Your task to perform on an android device: toggle priority inbox in the gmail app Image 0: 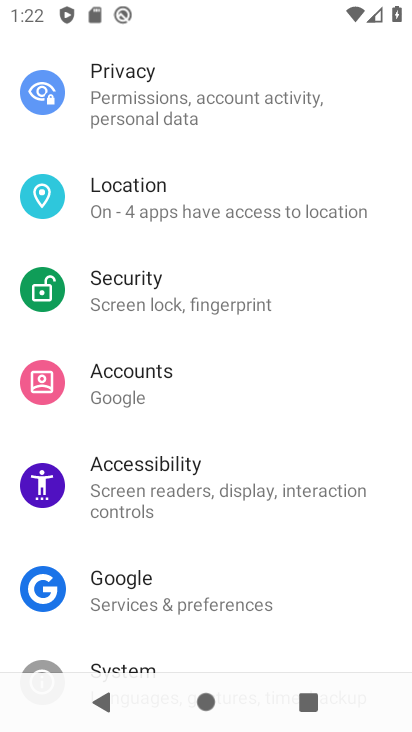
Step 0: press home button
Your task to perform on an android device: toggle priority inbox in the gmail app Image 1: 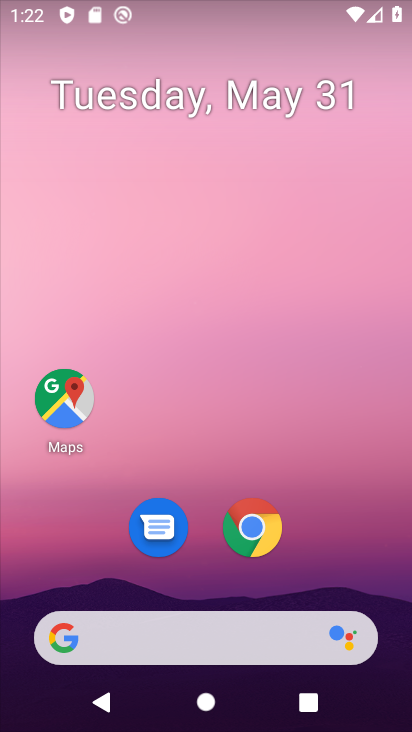
Step 1: drag from (395, 551) to (334, 96)
Your task to perform on an android device: toggle priority inbox in the gmail app Image 2: 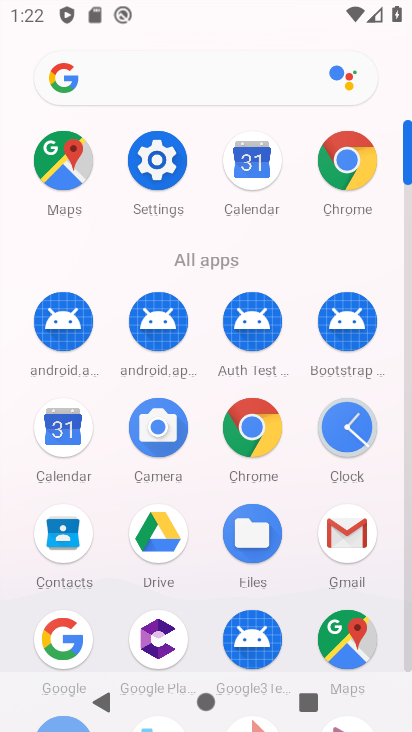
Step 2: click (355, 526)
Your task to perform on an android device: toggle priority inbox in the gmail app Image 3: 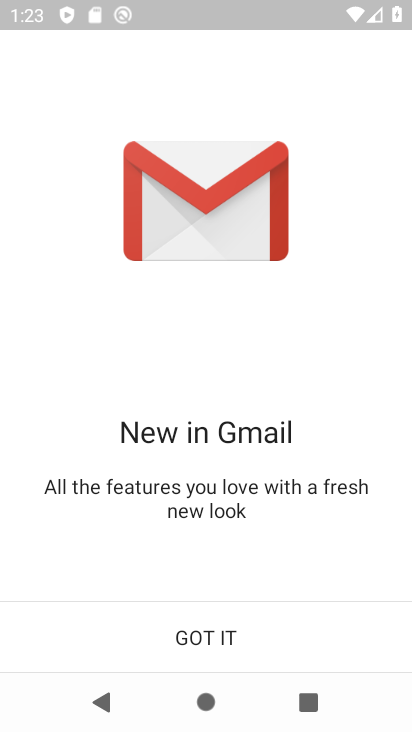
Step 3: click (222, 633)
Your task to perform on an android device: toggle priority inbox in the gmail app Image 4: 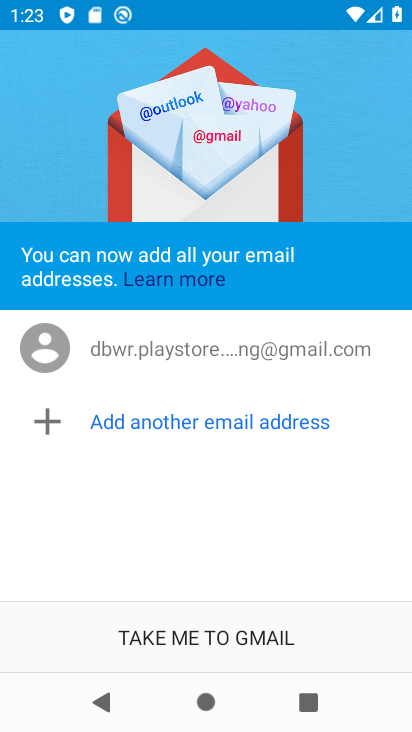
Step 4: click (233, 630)
Your task to perform on an android device: toggle priority inbox in the gmail app Image 5: 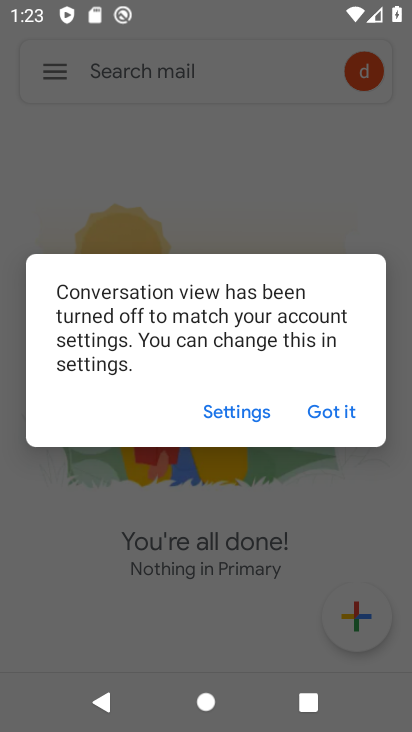
Step 5: click (332, 420)
Your task to perform on an android device: toggle priority inbox in the gmail app Image 6: 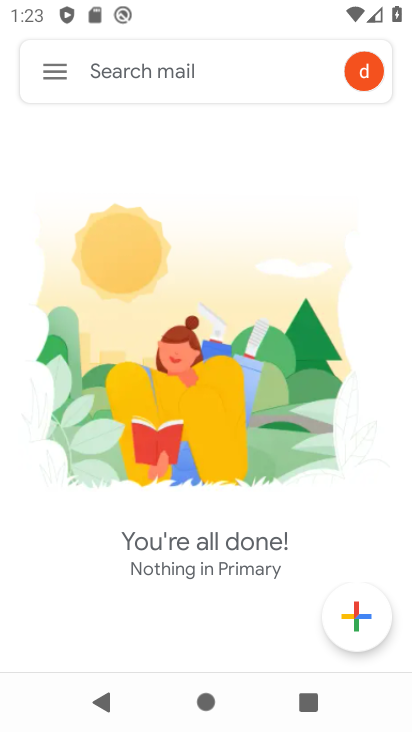
Step 6: click (60, 87)
Your task to perform on an android device: toggle priority inbox in the gmail app Image 7: 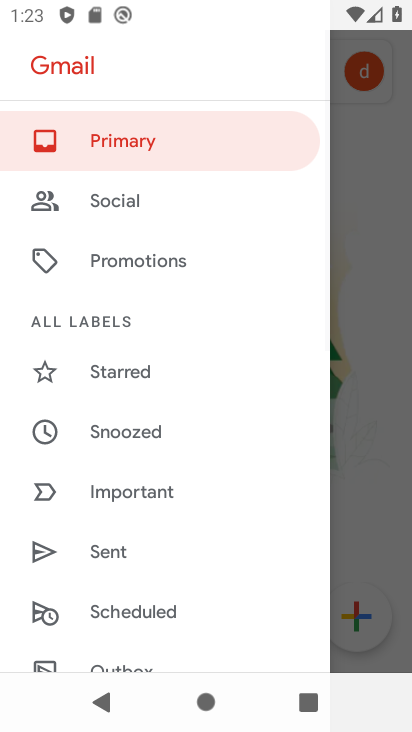
Step 7: drag from (142, 607) to (148, 198)
Your task to perform on an android device: toggle priority inbox in the gmail app Image 8: 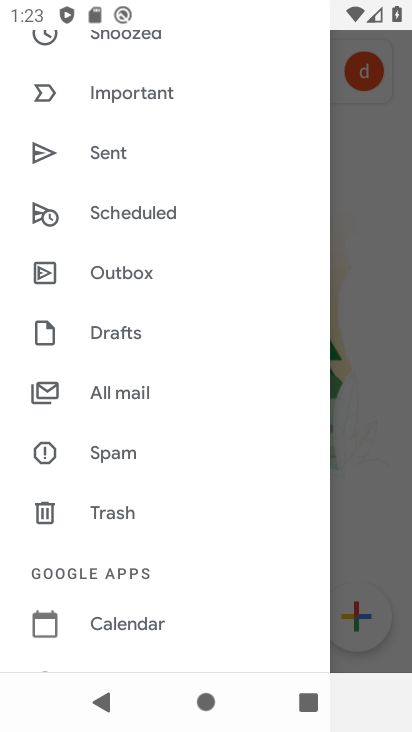
Step 8: drag from (139, 593) to (153, 194)
Your task to perform on an android device: toggle priority inbox in the gmail app Image 9: 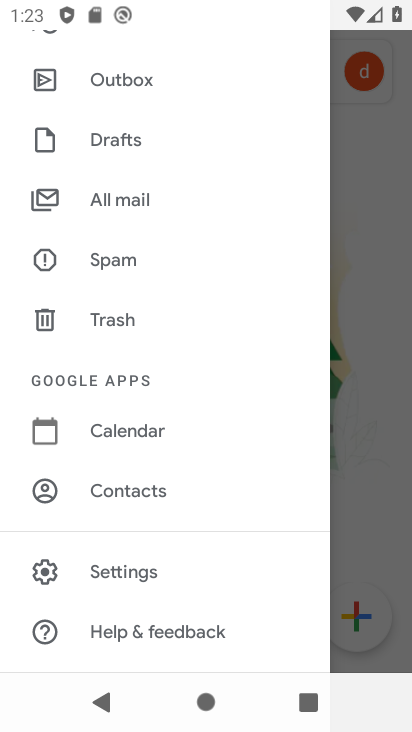
Step 9: click (119, 582)
Your task to perform on an android device: toggle priority inbox in the gmail app Image 10: 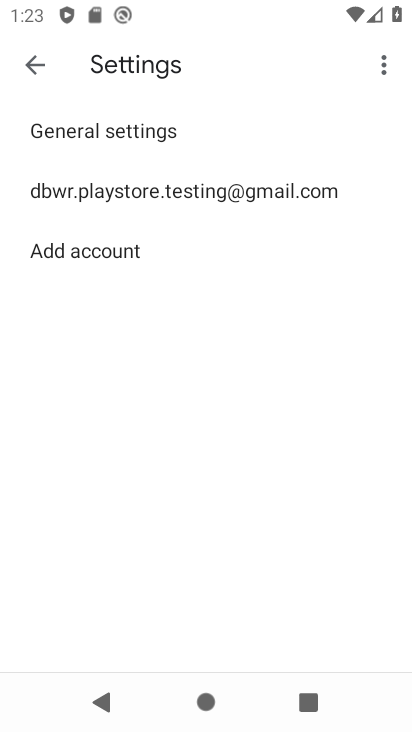
Step 10: click (97, 185)
Your task to perform on an android device: toggle priority inbox in the gmail app Image 11: 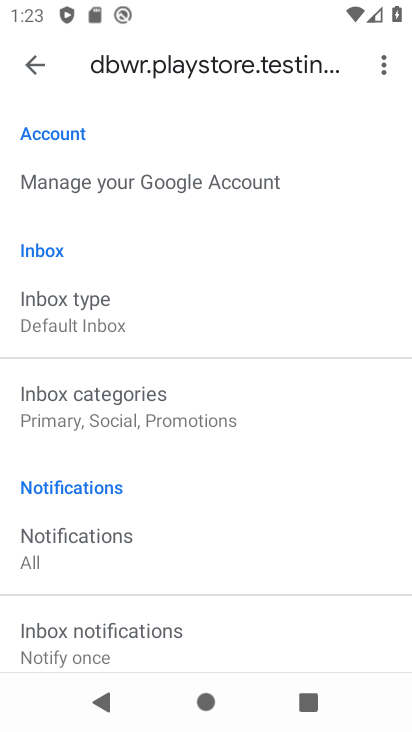
Step 11: click (45, 319)
Your task to perform on an android device: toggle priority inbox in the gmail app Image 12: 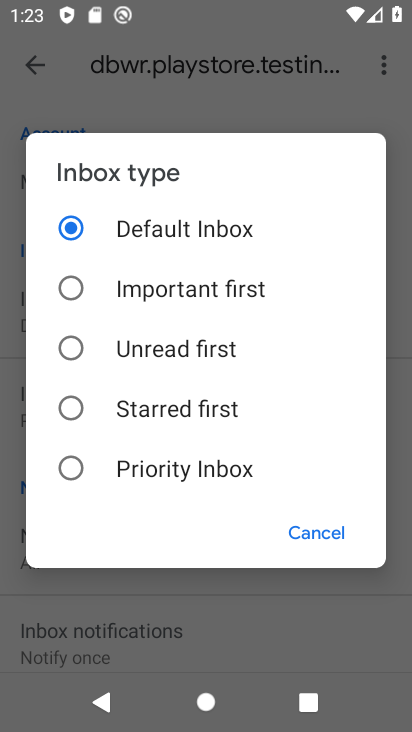
Step 12: click (72, 470)
Your task to perform on an android device: toggle priority inbox in the gmail app Image 13: 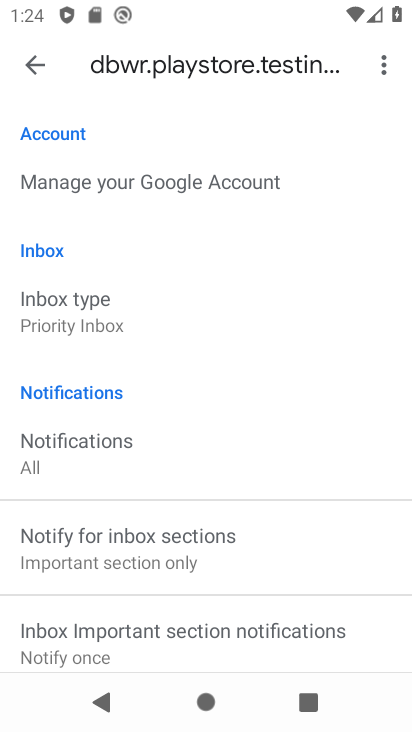
Step 13: task complete